Your task to perform on an android device: refresh tabs in the chrome app Image 0: 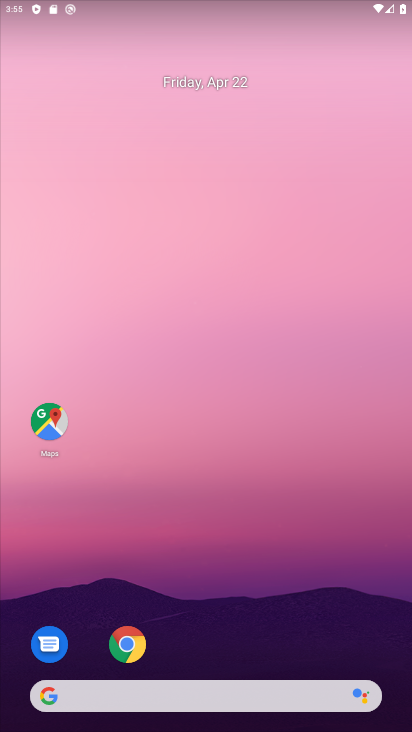
Step 0: click (129, 644)
Your task to perform on an android device: refresh tabs in the chrome app Image 1: 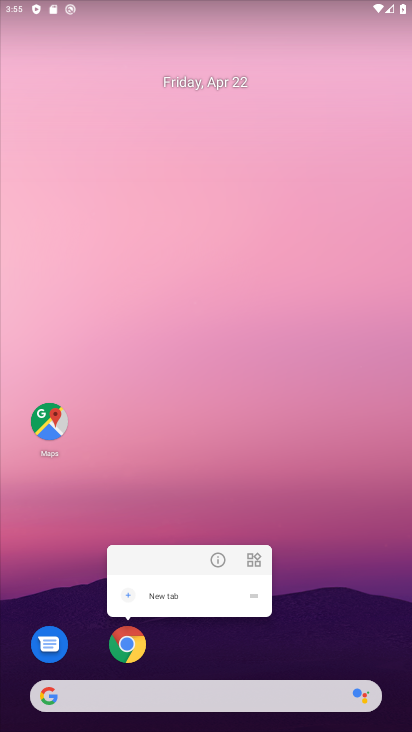
Step 1: click (127, 645)
Your task to perform on an android device: refresh tabs in the chrome app Image 2: 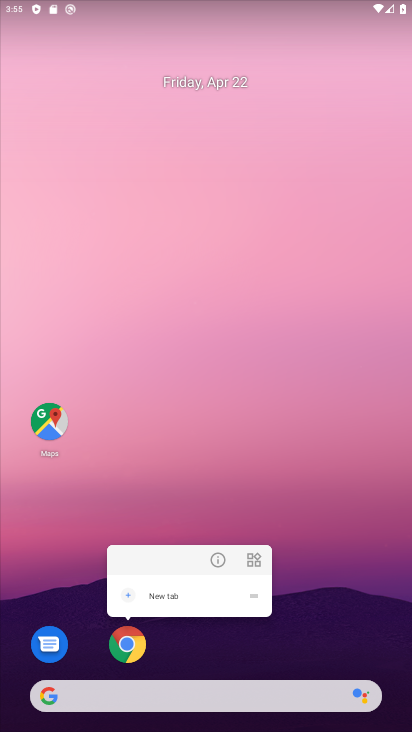
Step 2: click (127, 645)
Your task to perform on an android device: refresh tabs in the chrome app Image 3: 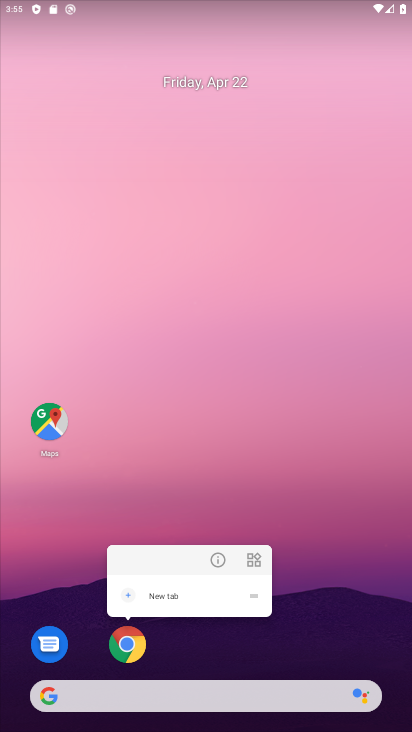
Step 3: click (129, 643)
Your task to perform on an android device: refresh tabs in the chrome app Image 4: 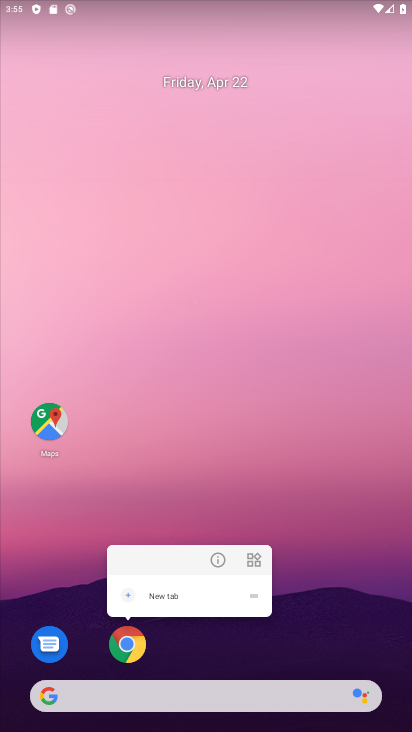
Step 4: click (129, 643)
Your task to perform on an android device: refresh tabs in the chrome app Image 5: 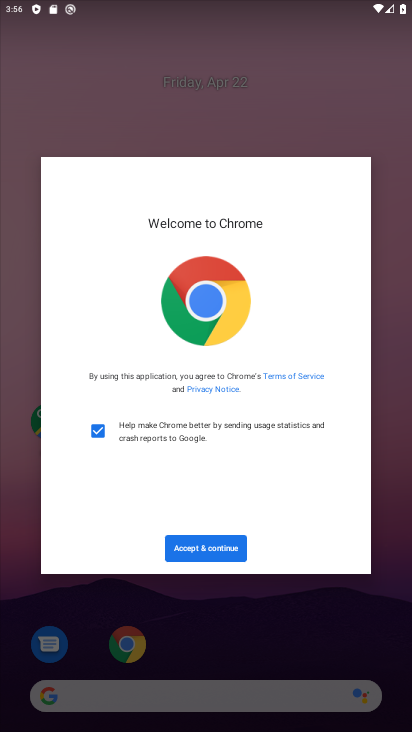
Step 5: click (210, 548)
Your task to perform on an android device: refresh tabs in the chrome app Image 6: 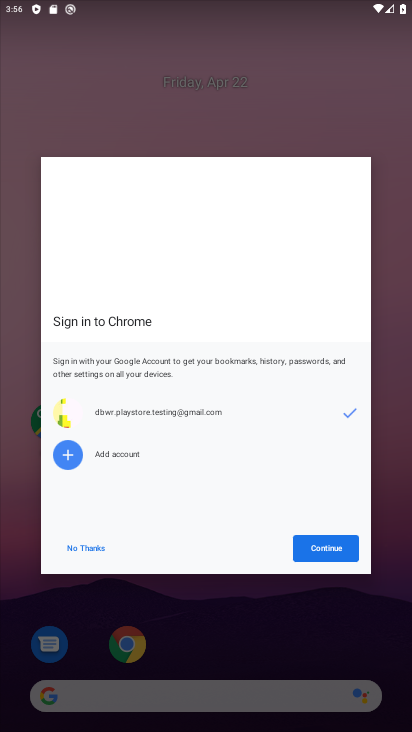
Step 6: click (311, 545)
Your task to perform on an android device: refresh tabs in the chrome app Image 7: 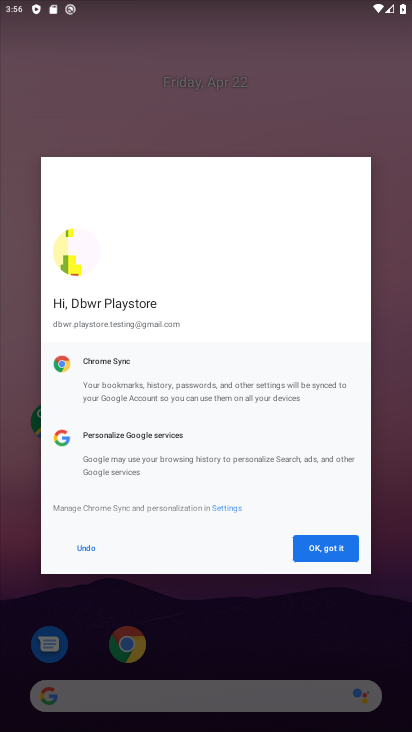
Step 7: click (311, 545)
Your task to perform on an android device: refresh tabs in the chrome app Image 8: 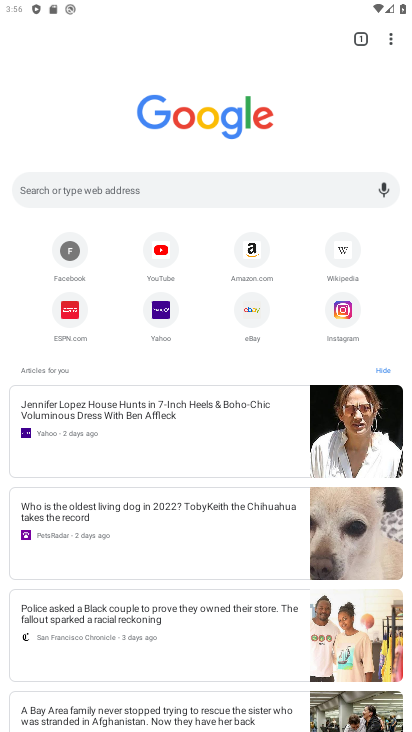
Step 8: click (391, 41)
Your task to perform on an android device: refresh tabs in the chrome app Image 9: 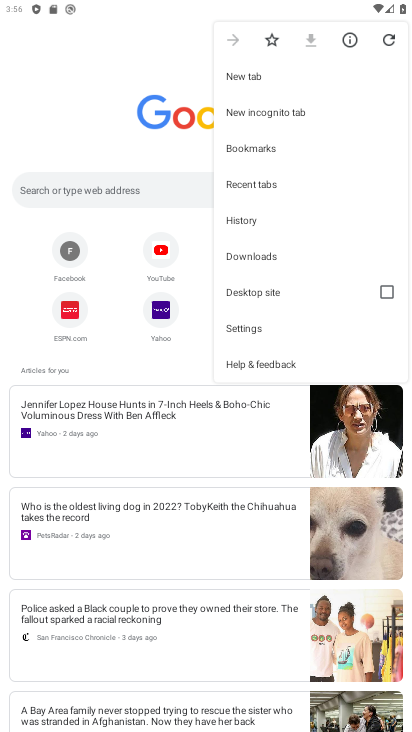
Step 9: click (390, 34)
Your task to perform on an android device: refresh tabs in the chrome app Image 10: 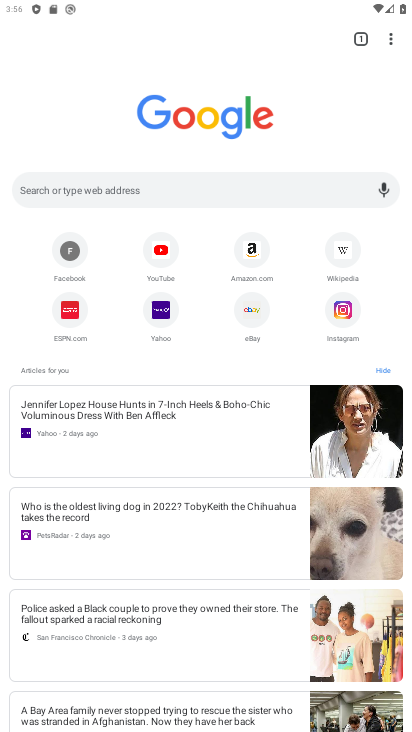
Step 10: task complete